Your task to perform on an android device: Open the phone app and click the voicemail tab. Image 0: 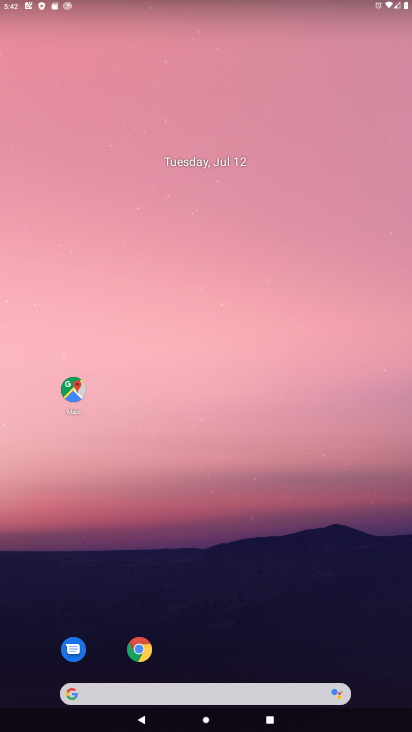
Step 0: drag from (219, 687) to (204, 11)
Your task to perform on an android device: Open the phone app and click the voicemail tab. Image 1: 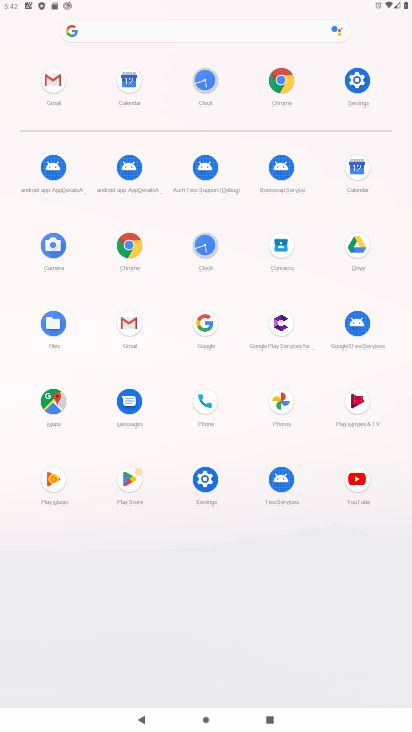
Step 1: click (202, 402)
Your task to perform on an android device: Open the phone app and click the voicemail tab. Image 2: 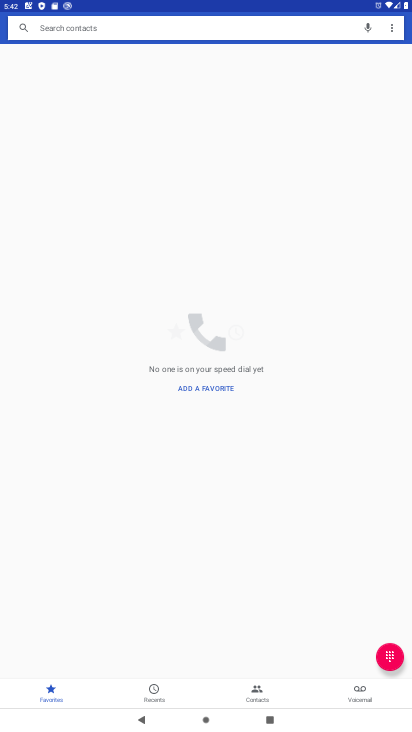
Step 2: click (361, 693)
Your task to perform on an android device: Open the phone app and click the voicemail tab. Image 3: 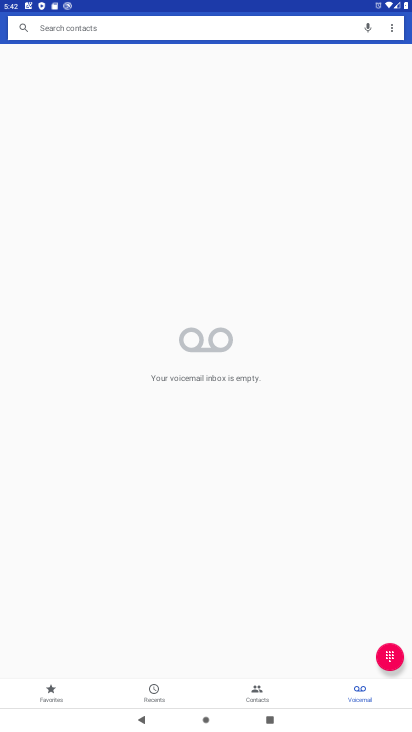
Step 3: task complete